Your task to perform on an android device: Open calendar and show me the second week of next month Image 0: 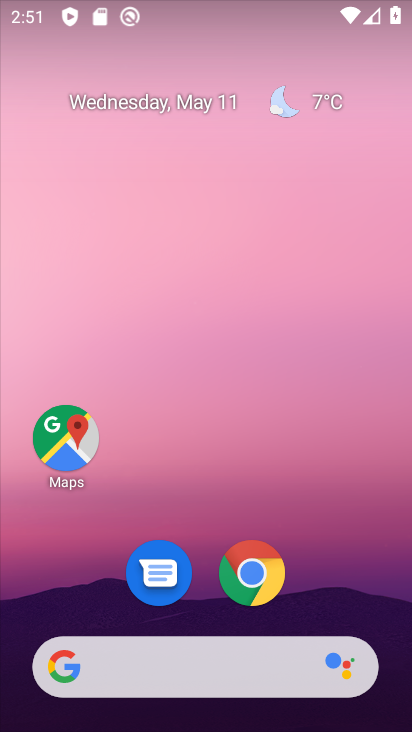
Step 0: drag from (188, 662) to (196, 275)
Your task to perform on an android device: Open calendar and show me the second week of next month Image 1: 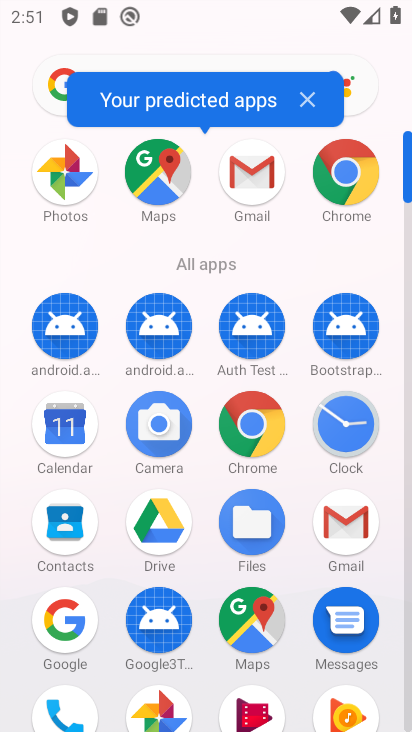
Step 1: click (70, 434)
Your task to perform on an android device: Open calendar and show me the second week of next month Image 2: 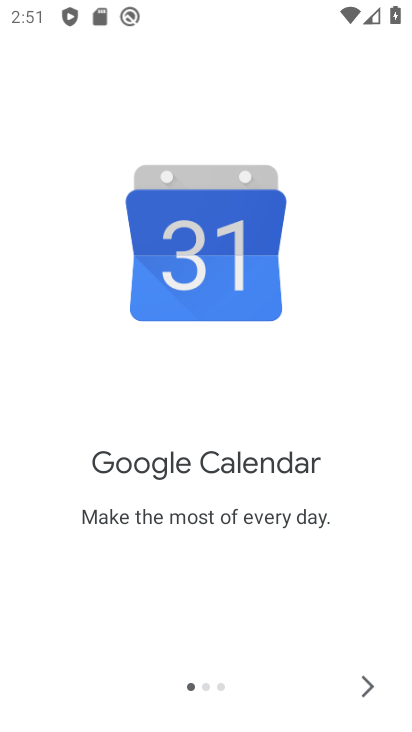
Step 2: click (358, 697)
Your task to perform on an android device: Open calendar and show me the second week of next month Image 3: 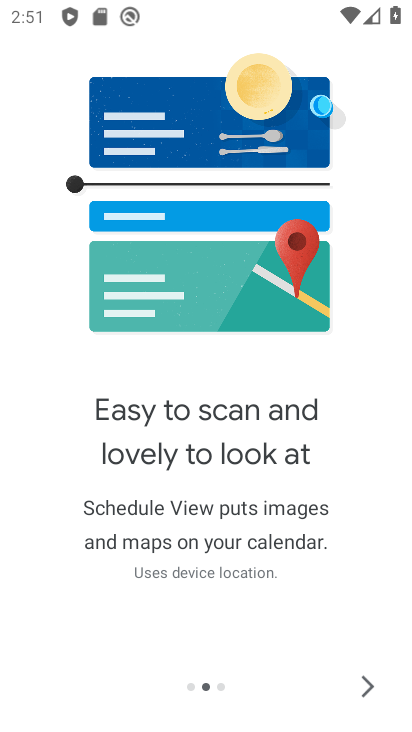
Step 3: click (358, 697)
Your task to perform on an android device: Open calendar and show me the second week of next month Image 4: 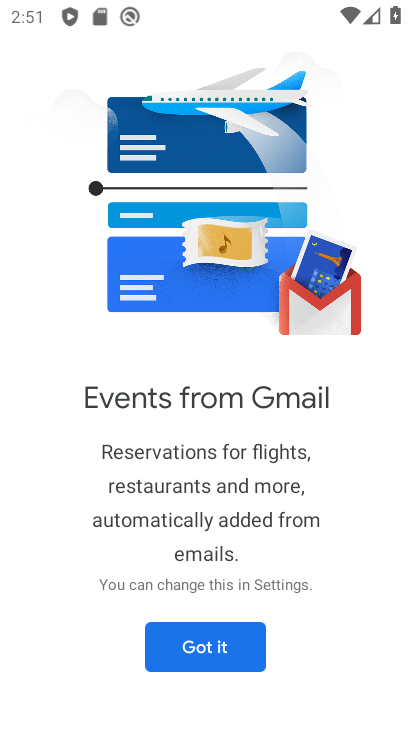
Step 4: click (178, 650)
Your task to perform on an android device: Open calendar and show me the second week of next month Image 5: 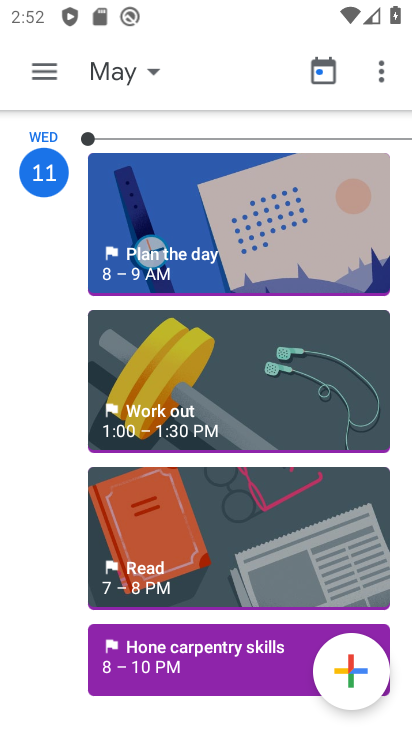
Step 5: click (56, 80)
Your task to perform on an android device: Open calendar and show me the second week of next month Image 6: 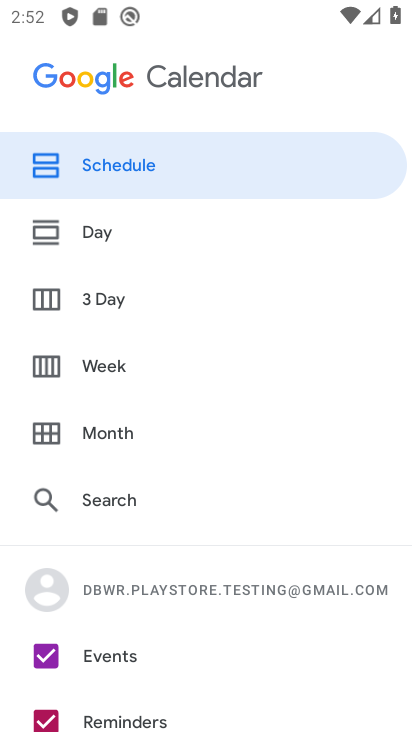
Step 6: click (115, 431)
Your task to perform on an android device: Open calendar and show me the second week of next month Image 7: 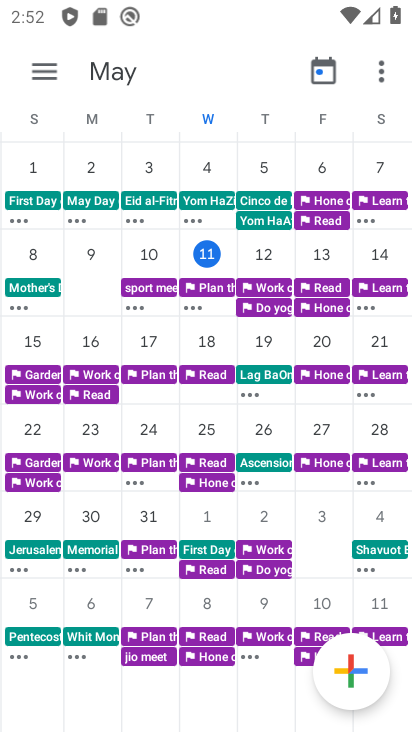
Step 7: task complete